Your task to perform on an android device: Go to Google Image 0: 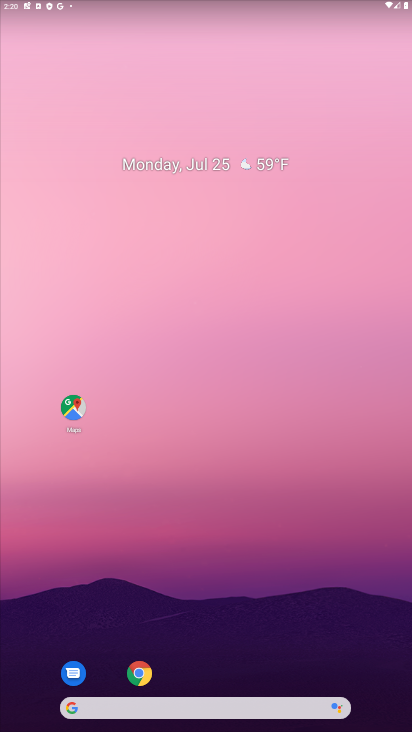
Step 0: click (115, 703)
Your task to perform on an android device: Go to Google Image 1: 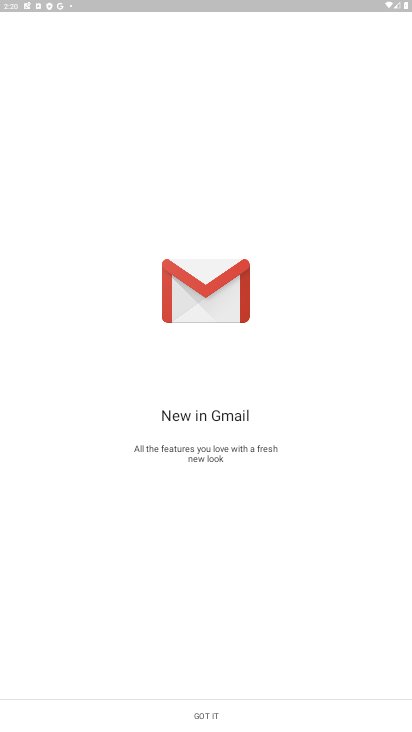
Step 1: press home button
Your task to perform on an android device: Go to Google Image 2: 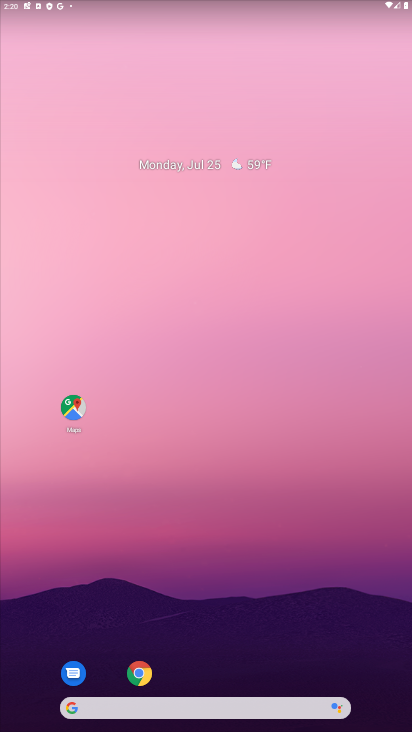
Step 2: click (172, 701)
Your task to perform on an android device: Go to Google Image 3: 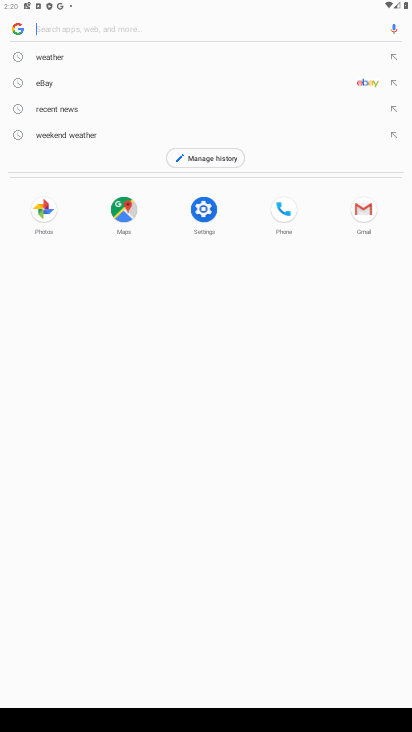
Step 3: task complete